Your task to perform on an android device: Go to battery settings Image 0: 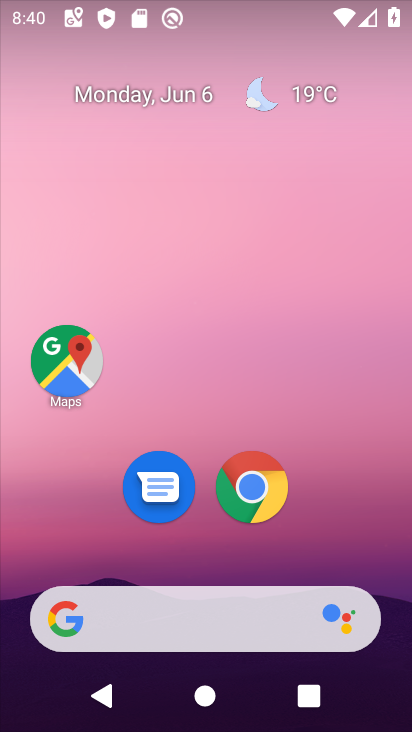
Step 0: drag from (212, 558) to (299, 28)
Your task to perform on an android device: Go to battery settings Image 1: 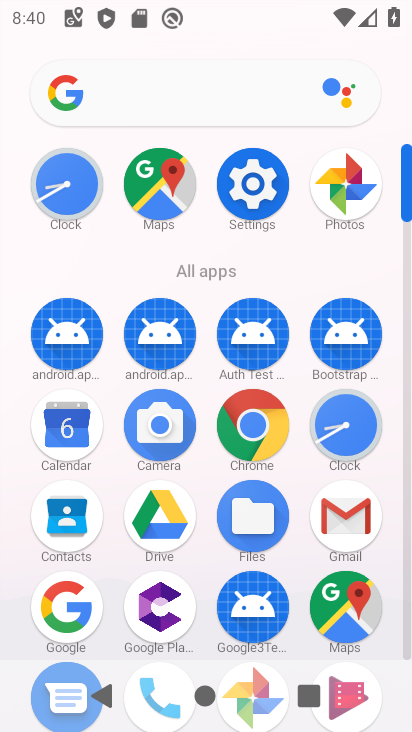
Step 1: click (243, 174)
Your task to perform on an android device: Go to battery settings Image 2: 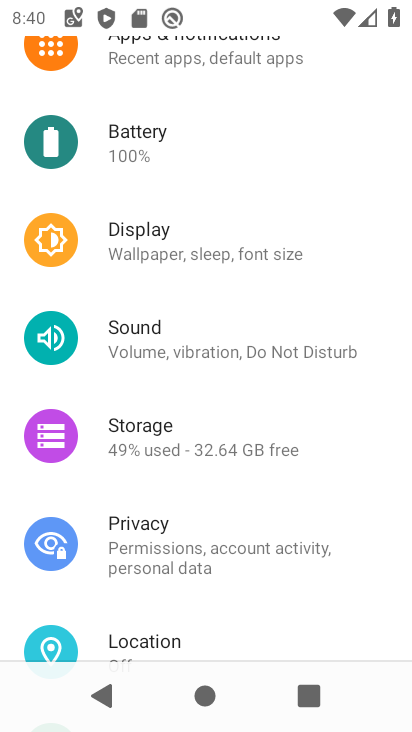
Step 2: click (177, 135)
Your task to perform on an android device: Go to battery settings Image 3: 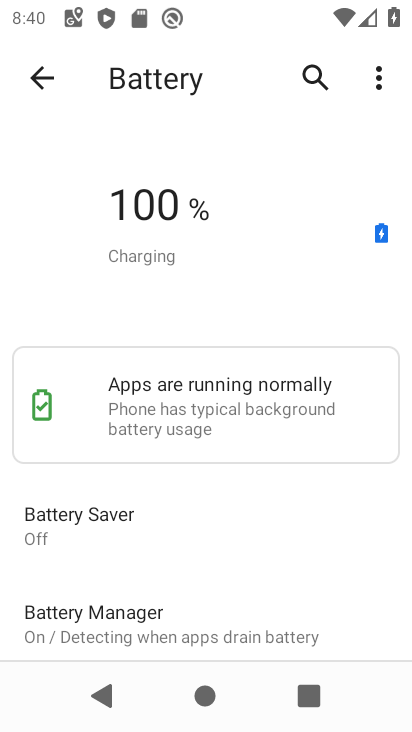
Step 3: task complete